Your task to perform on an android device: Show me recent news Image 0: 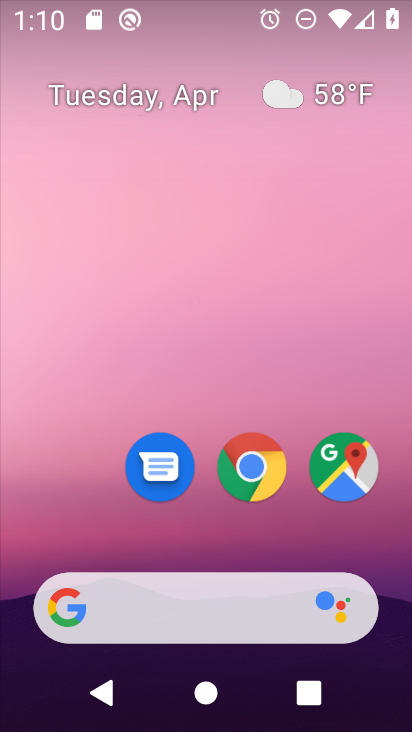
Step 0: click (192, 624)
Your task to perform on an android device: Show me recent news Image 1: 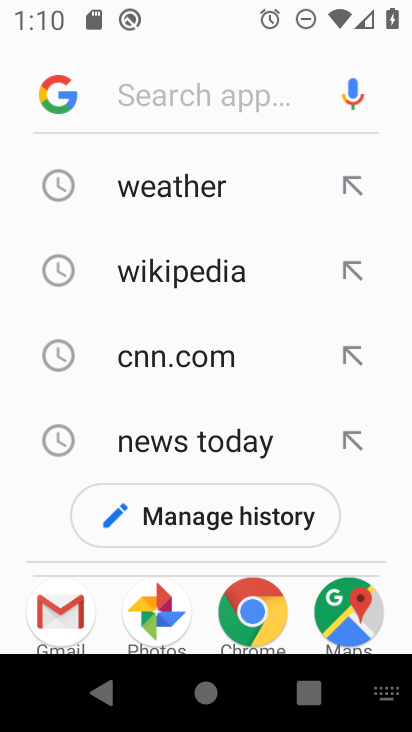
Step 1: click (60, 71)
Your task to perform on an android device: Show me recent news Image 2: 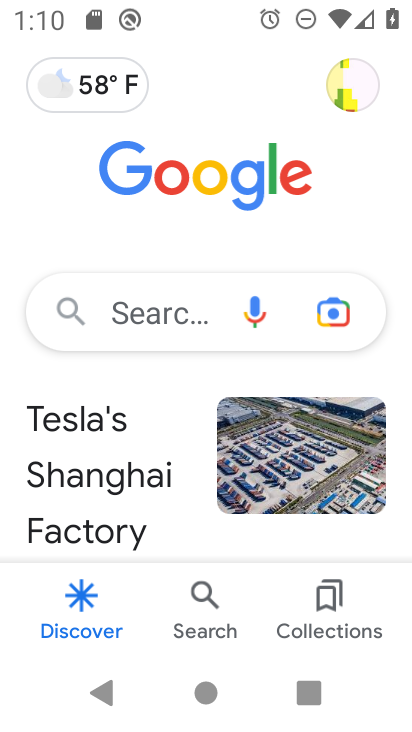
Step 2: task complete